Your task to perform on an android device: Go to CNN.com Image 0: 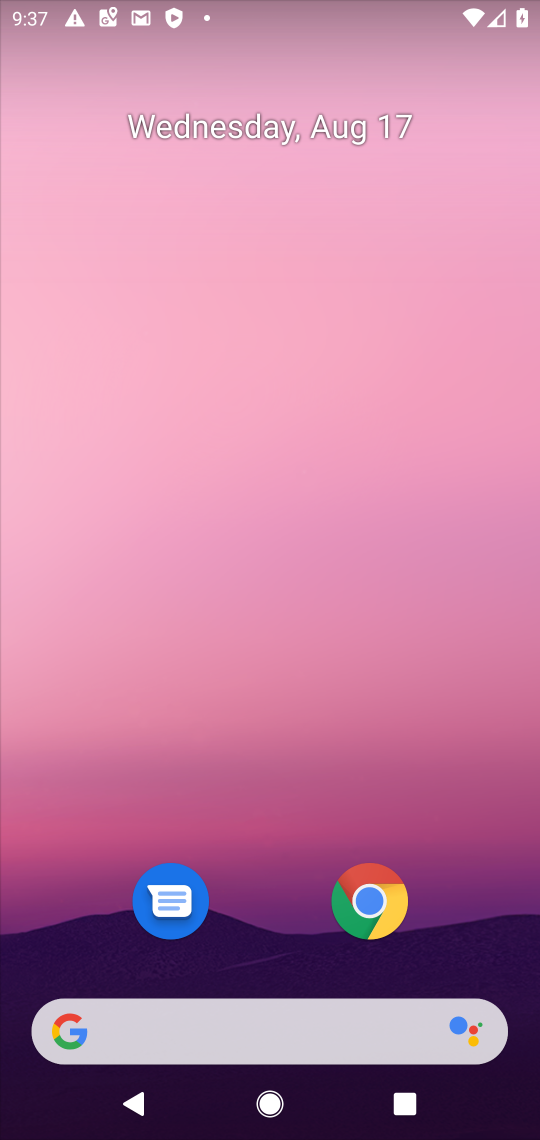
Step 0: drag from (271, 869) to (305, 165)
Your task to perform on an android device: Go to CNN.com Image 1: 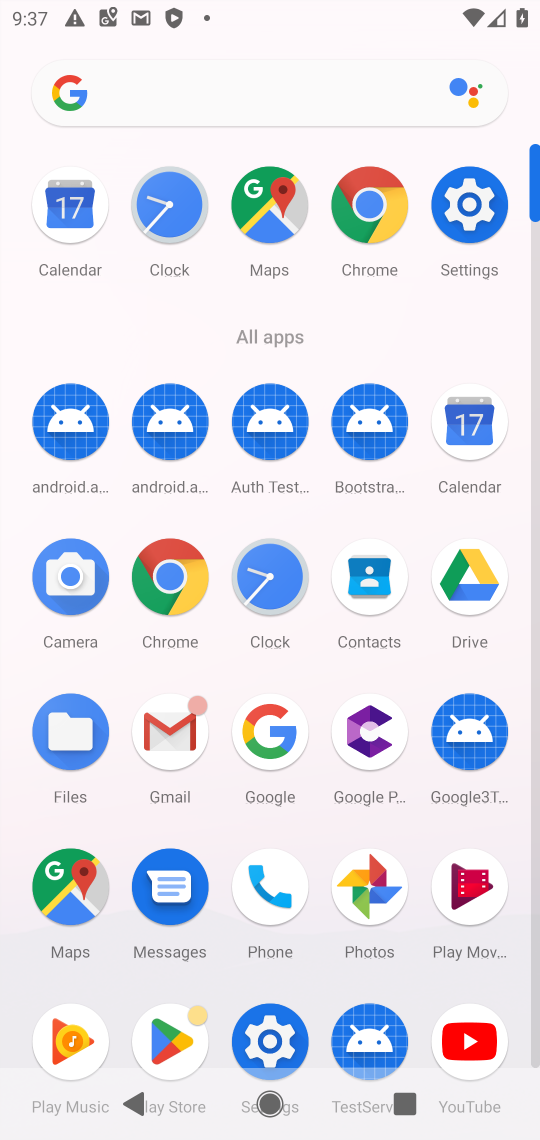
Step 1: click (175, 580)
Your task to perform on an android device: Go to CNN.com Image 2: 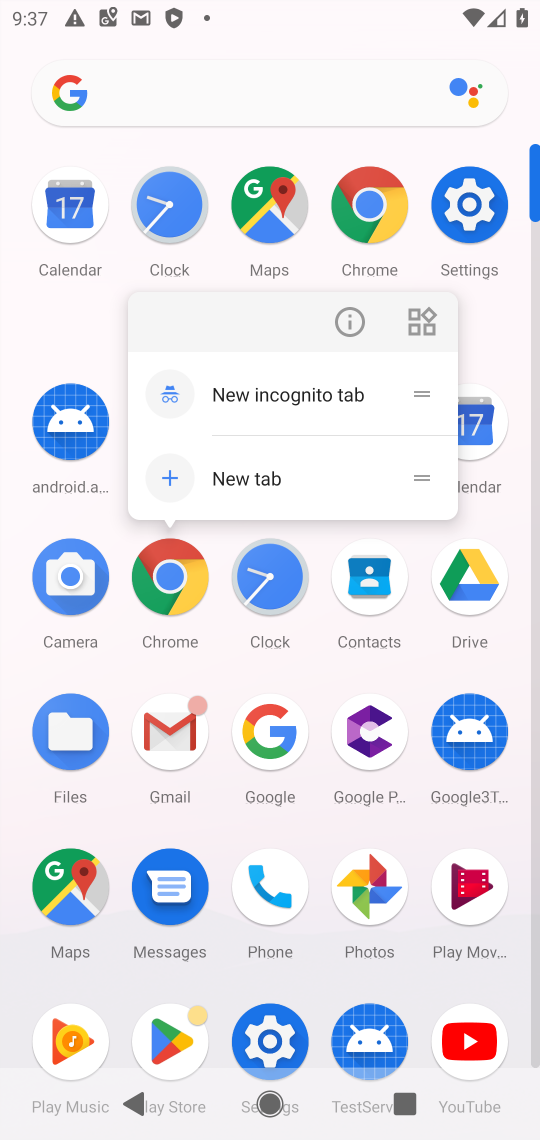
Step 2: click (172, 579)
Your task to perform on an android device: Go to CNN.com Image 3: 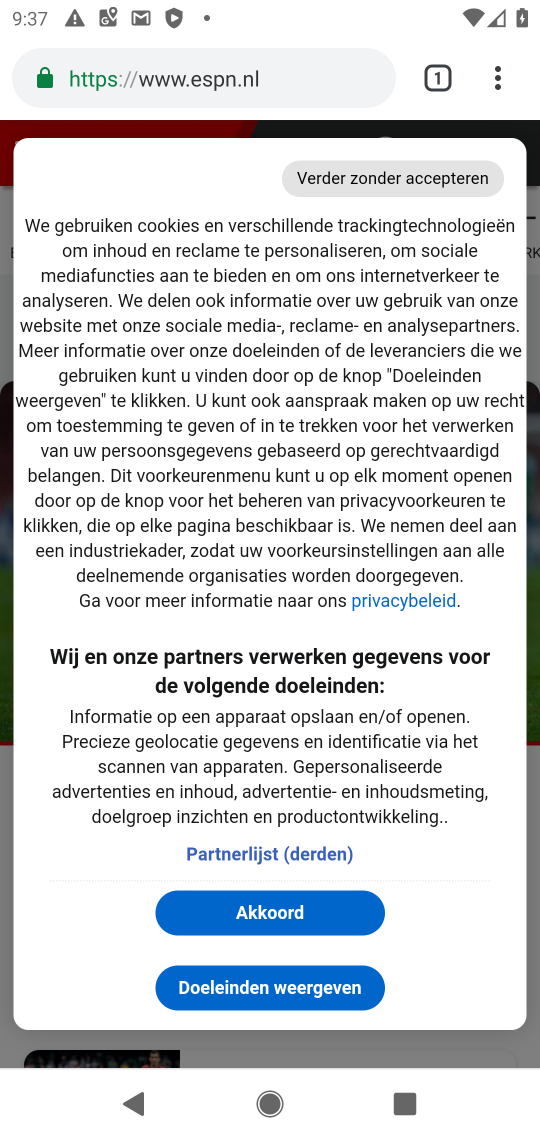
Step 3: click (268, 66)
Your task to perform on an android device: Go to CNN.com Image 4: 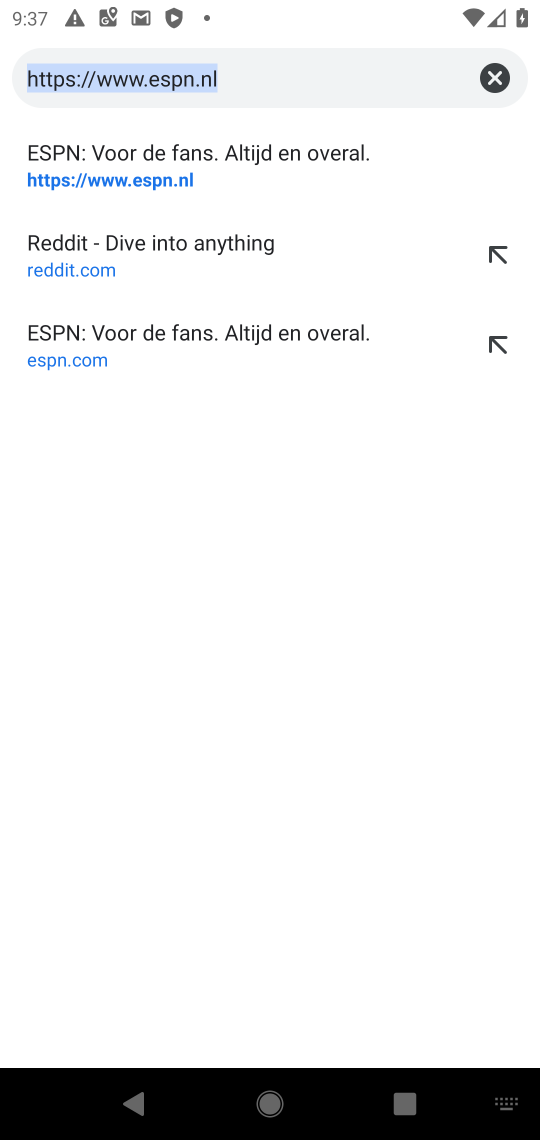
Step 4: type "cnn.com"
Your task to perform on an android device: Go to CNN.com Image 5: 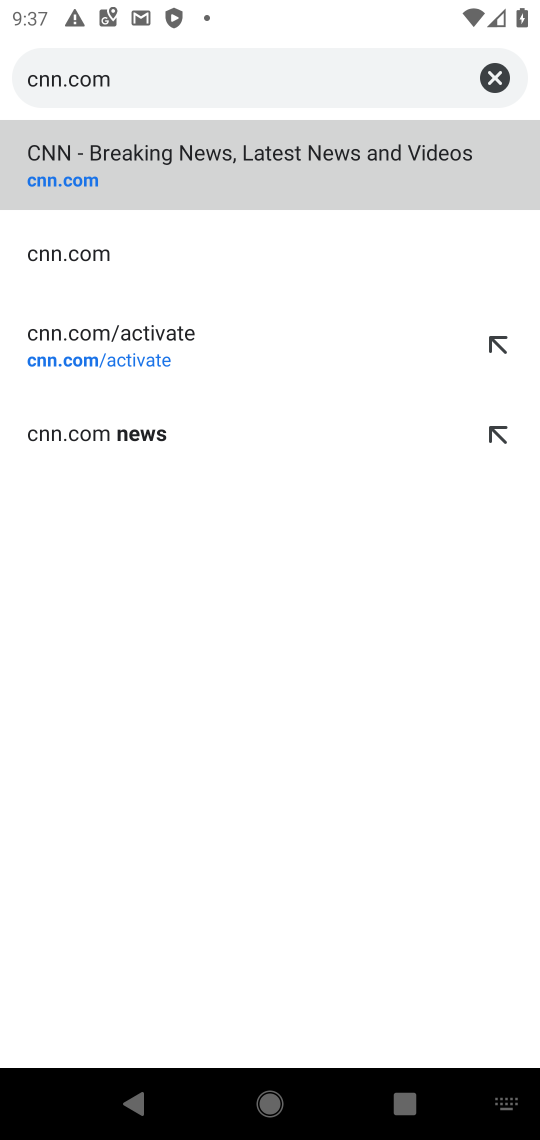
Step 5: click (69, 188)
Your task to perform on an android device: Go to CNN.com Image 6: 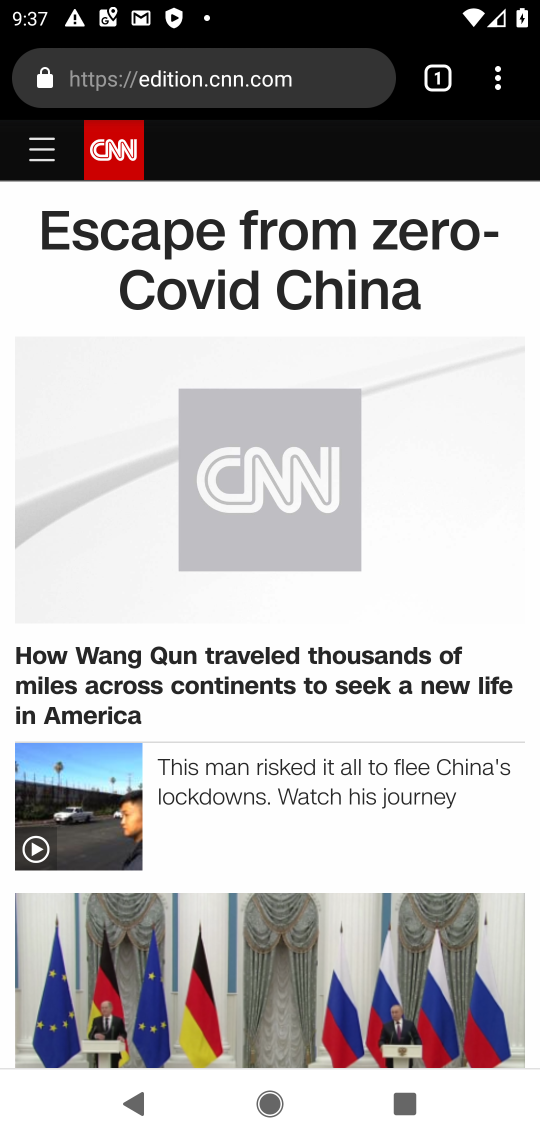
Step 6: task complete